Your task to perform on an android device: Search for Italian restaurants on Maps Image 0: 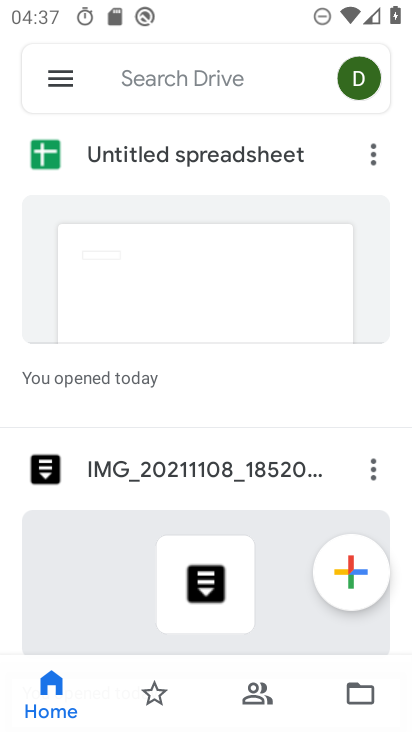
Step 0: press home button
Your task to perform on an android device: Search for Italian restaurants on Maps Image 1: 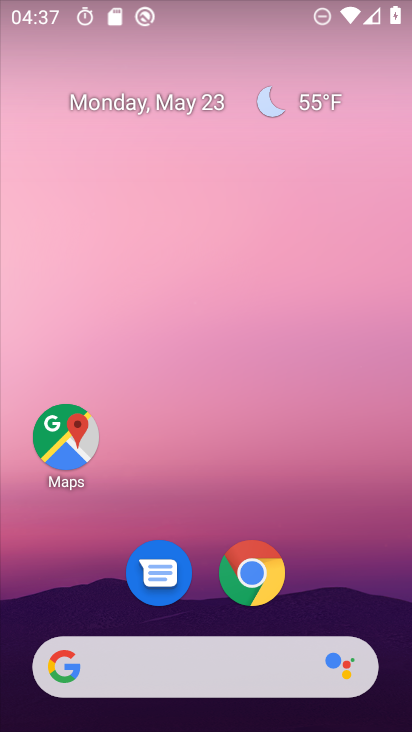
Step 1: click (64, 434)
Your task to perform on an android device: Search for Italian restaurants on Maps Image 2: 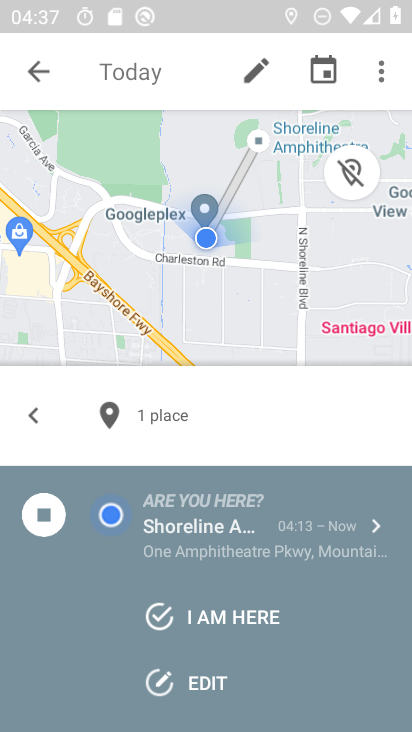
Step 2: click (37, 71)
Your task to perform on an android device: Search for Italian restaurants on Maps Image 3: 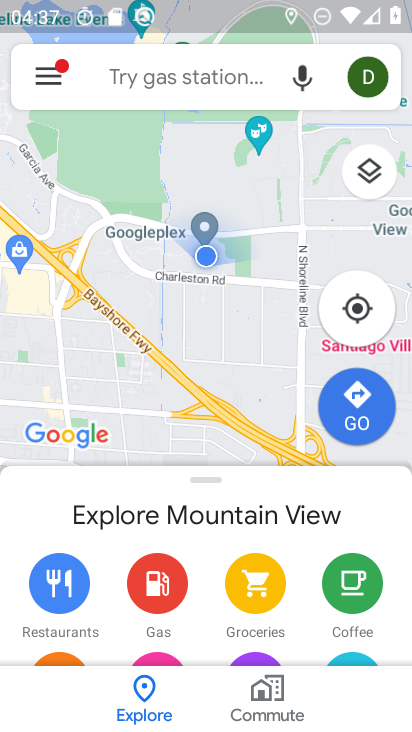
Step 3: click (175, 71)
Your task to perform on an android device: Search for Italian restaurants on Maps Image 4: 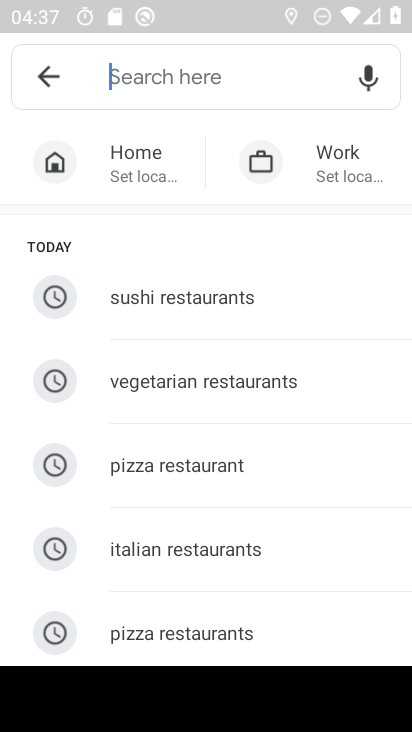
Step 4: click (192, 543)
Your task to perform on an android device: Search for Italian restaurants on Maps Image 5: 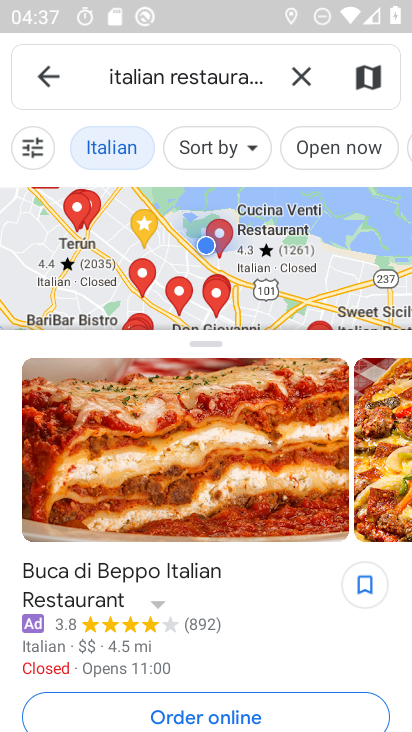
Step 5: task complete